Your task to perform on an android device: change notification settings in the gmail app Image 0: 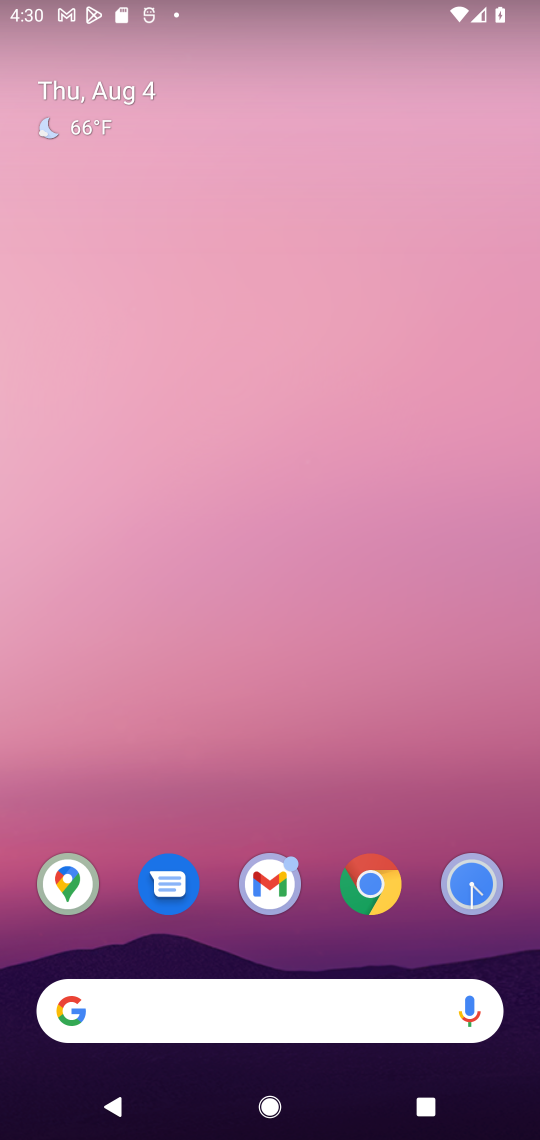
Step 0: click (285, 917)
Your task to perform on an android device: change notification settings in the gmail app Image 1: 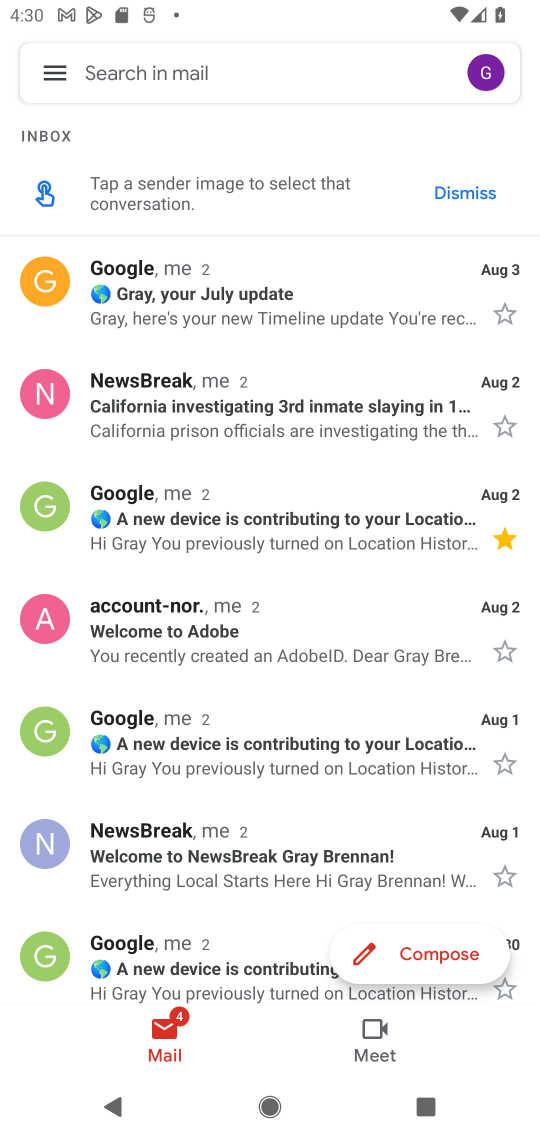
Step 1: task complete